Your task to perform on an android device: View the shopping cart on costco. Search for "amazon basics triple a" on costco, select the first entry, and add it to the cart. Image 0: 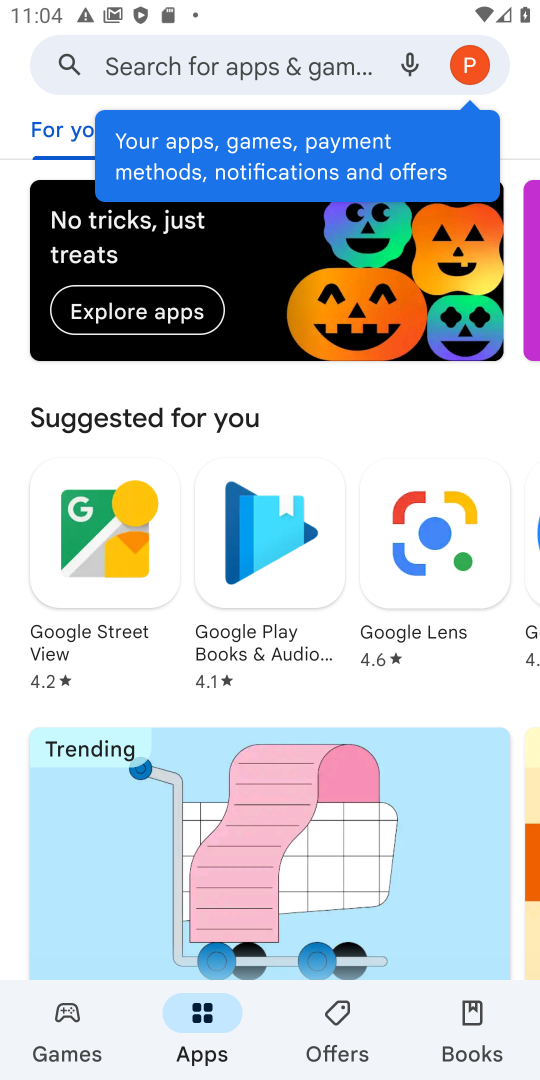
Step 0: press home button
Your task to perform on an android device: View the shopping cart on costco. Search for "amazon basics triple a" on costco, select the first entry, and add it to the cart. Image 1: 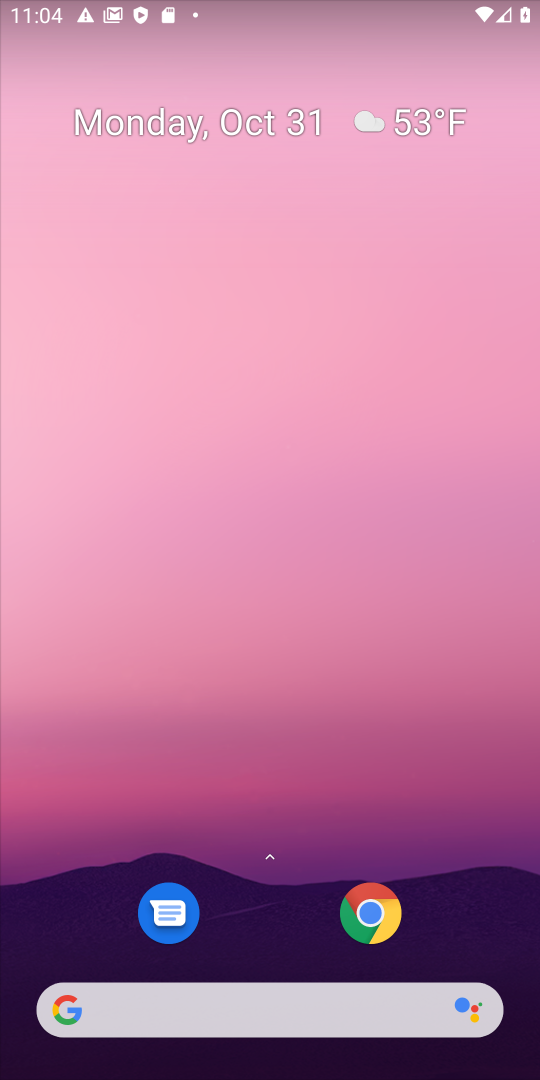
Step 1: click (309, 1001)
Your task to perform on an android device: View the shopping cart on costco. Search for "amazon basics triple a" on costco, select the first entry, and add it to the cart. Image 2: 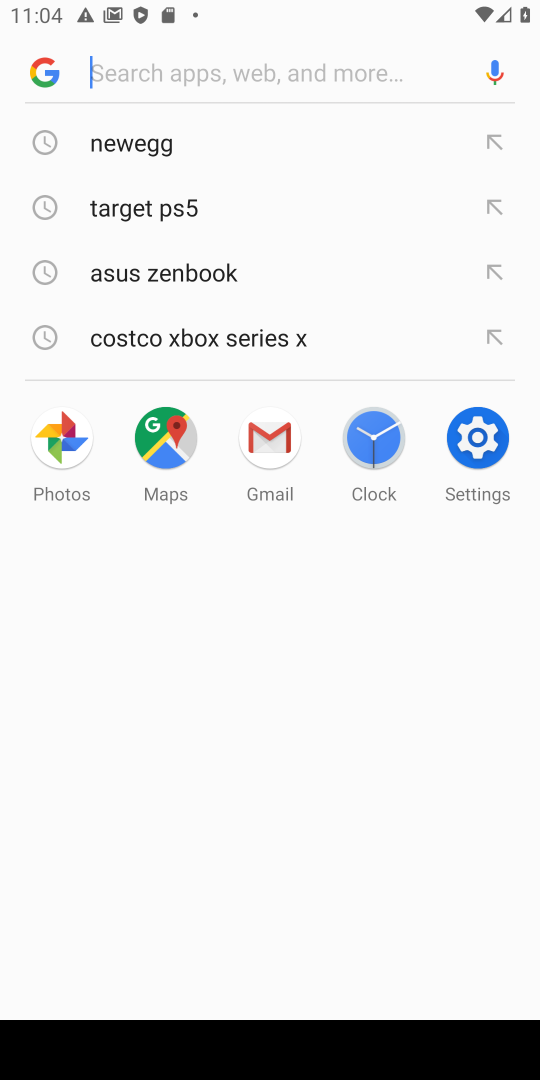
Step 2: type "costco.com"
Your task to perform on an android device: View the shopping cart on costco. Search for "amazon basics triple a" on costco, select the first entry, and add it to the cart. Image 3: 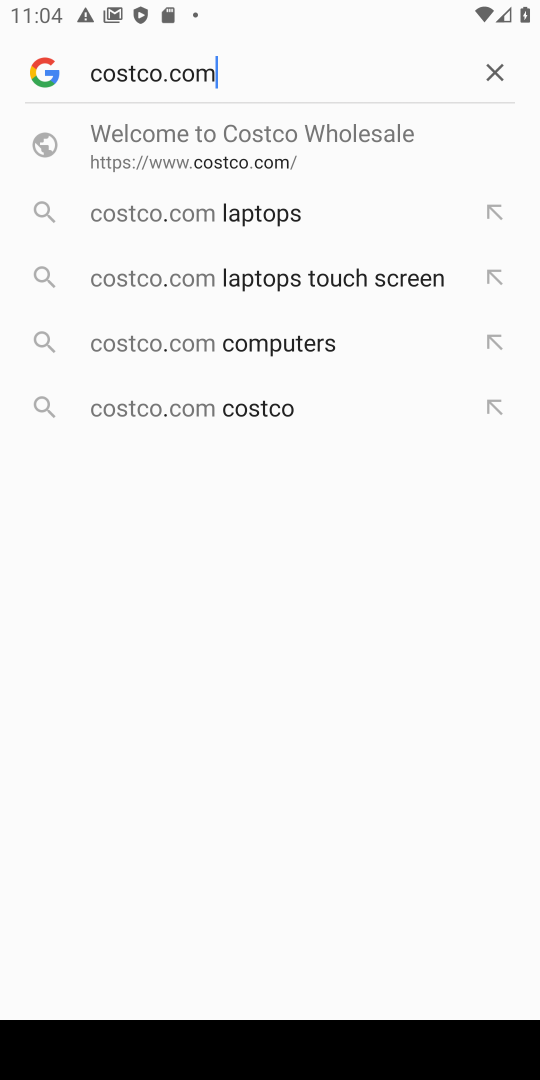
Step 3: click (199, 140)
Your task to perform on an android device: View the shopping cart on costco. Search for "amazon basics triple a" on costco, select the first entry, and add it to the cart. Image 4: 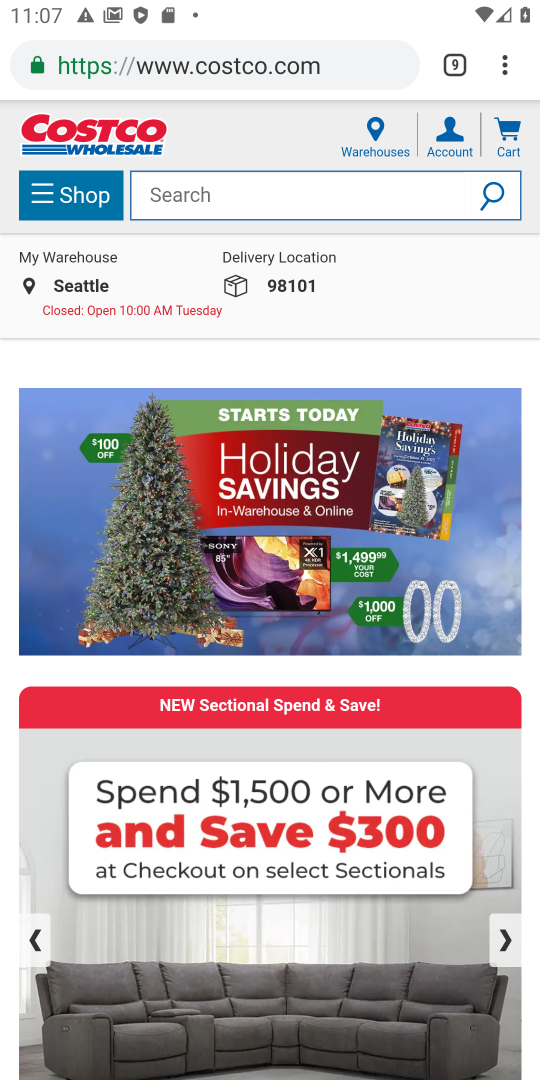
Step 4: task complete